Your task to perform on an android device: star an email in the gmail app Image 0: 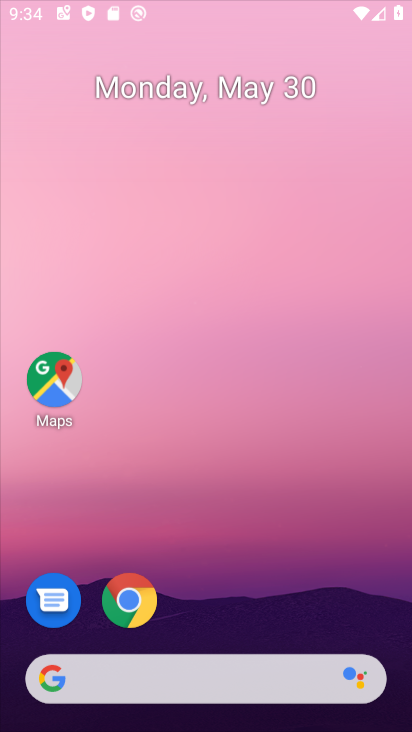
Step 0: press home button
Your task to perform on an android device: star an email in the gmail app Image 1: 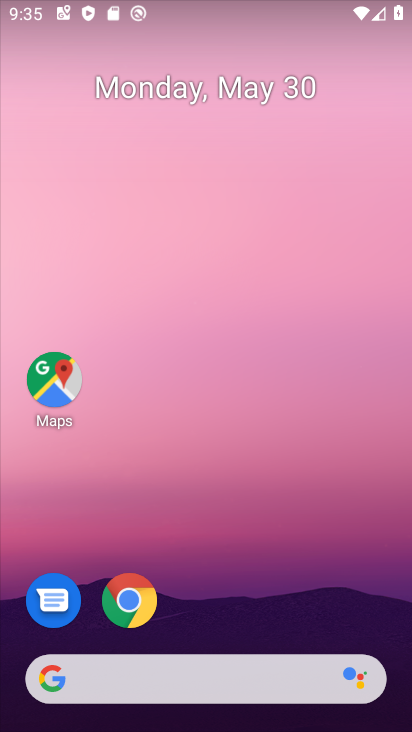
Step 1: drag from (296, 623) to (275, 117)
Your task to perform on an android device: star an email in the gmail app Image 2: 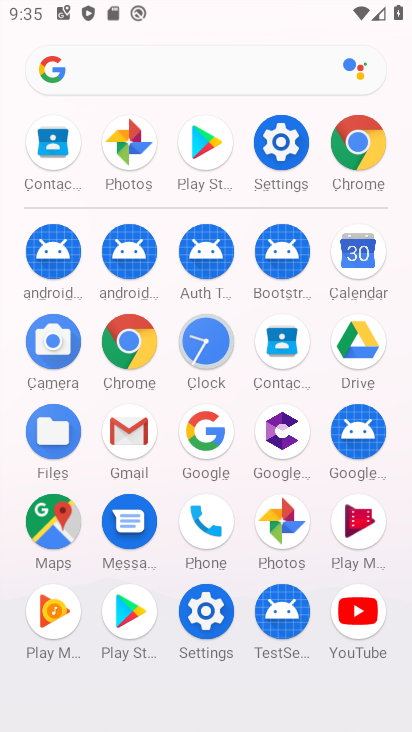
Step 2: click (128, 444)
Your task to perform on an android device: star an email in the gmail app Image 3: 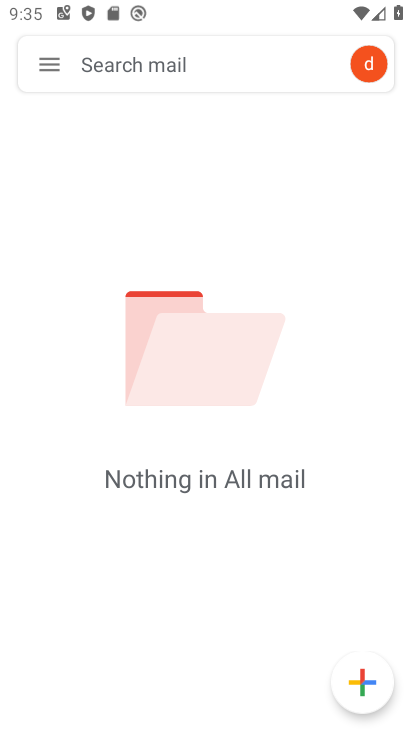
Step 3: click (41, 60)
Your task to perform on an android device: star an email in the gmail app Image 4: 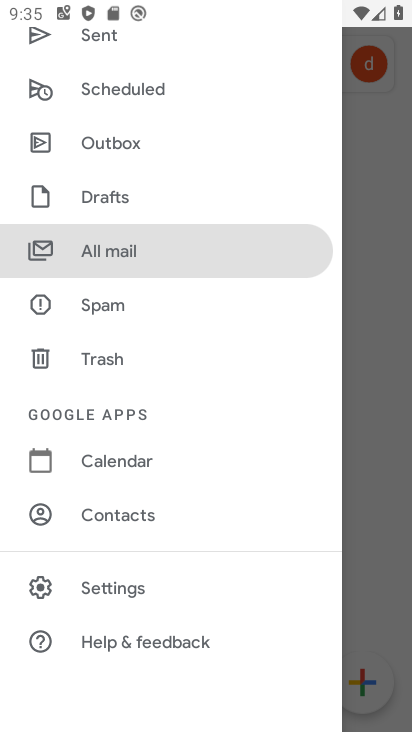
Step 4: click (151, 264)
Your task to perform on an android device: star an email in the gmail app Image 5: 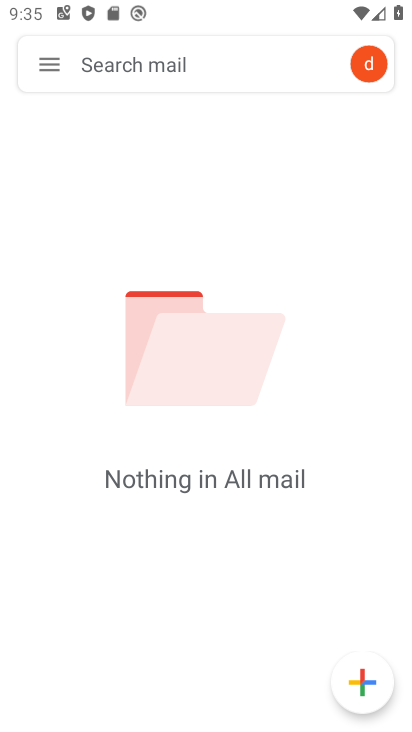
Step 5: task complete